Your task to perform on an android device: Go to calendar. Show me events next week Image 0: 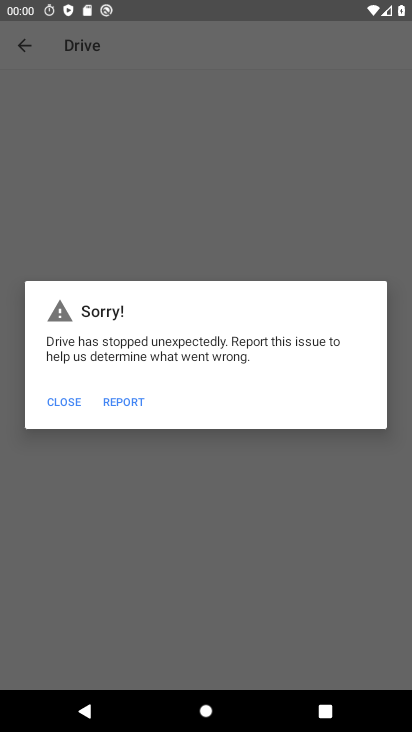
Step 0: press home button
Your task to perform on an android device: Go to calendar. Show me events next week Image 1: 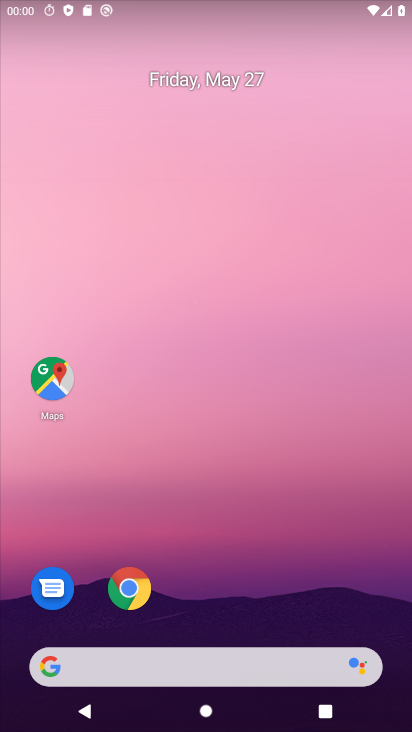
Step 1: drag from (194, 652) to (205, 322)
Your task to perform on an android device: Go to calendar. Show me events next week Image 2: 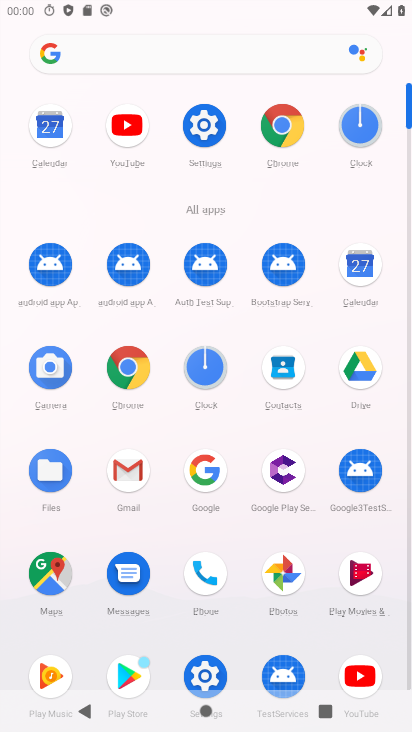
Step 2: click (339, 258)
Your task to perform on an android device: Go to calendar. Show me events next week Image 3: 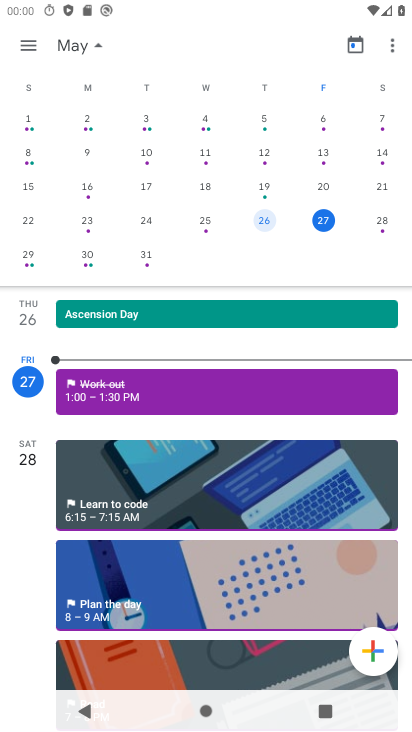
Step 3: drag from (382, 255) to (26, 276)
Your task to perform on an android device: Go to calendar. Show me events next week Image 4: 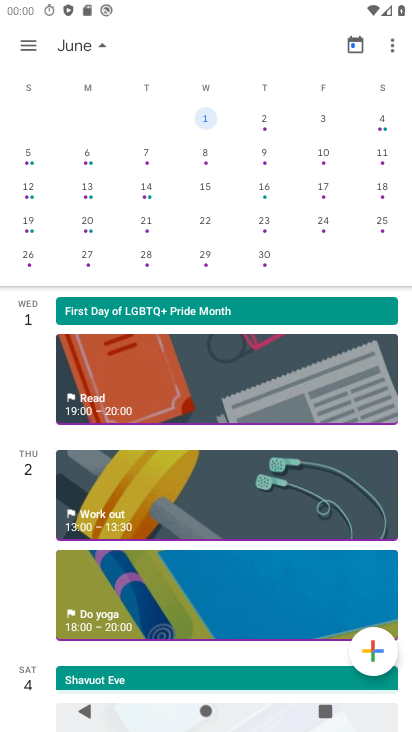
Step 4: click (206, 121)
Your task to perform on an android device: Go to calendar. Show me events next week Image 5: 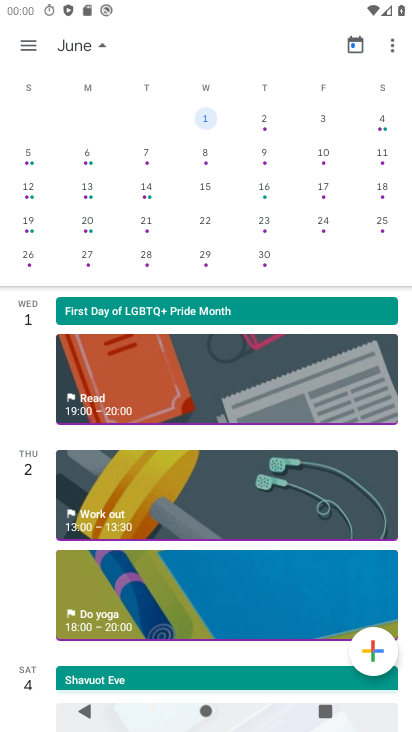
Step 5: task complete